Your task to perform on an android device: see sites visited before in the chrome app Image 0: 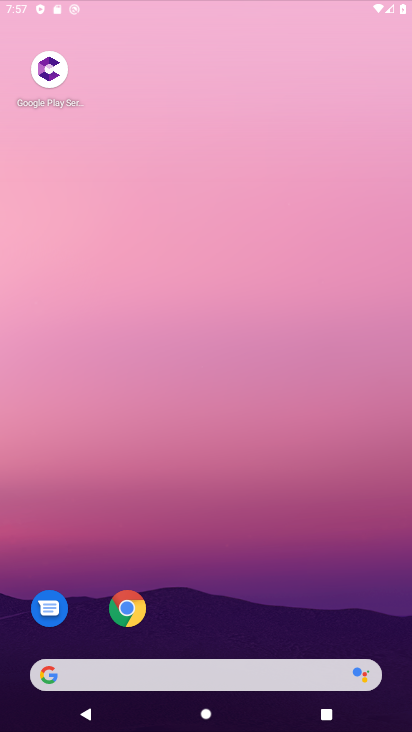
Step 0: click (200, 115)
Your task to perform on an android device: see sites visited before in the chrome app Image 1: 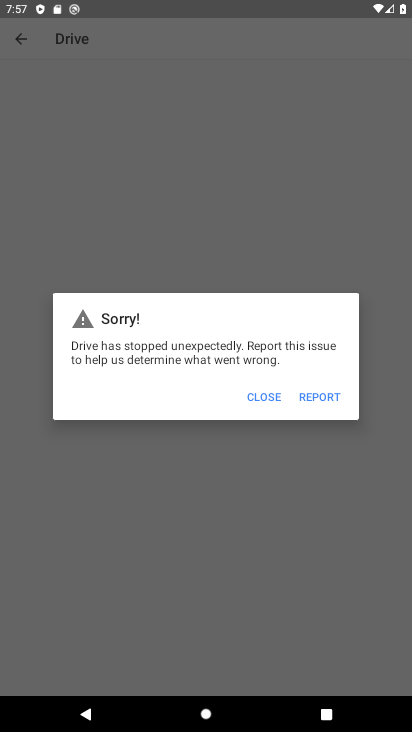
Step 1: press home button
Your task to perform on an android device: see sites visited before in the chrome app Image 2: 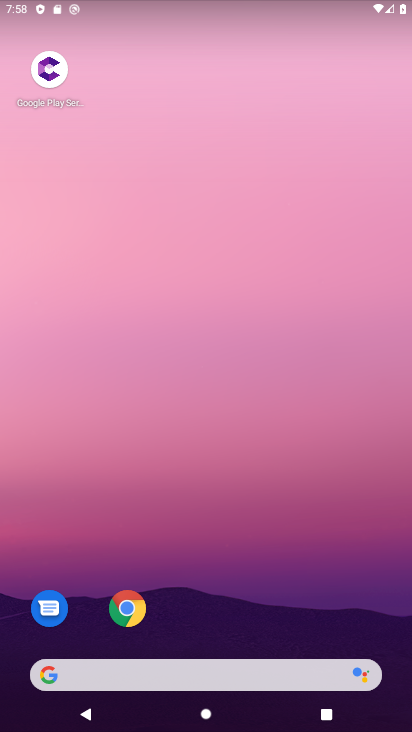
Step 2: click (121, 615)
Your task to perform on an android device: see sites visited before in the chrome app Image 3: 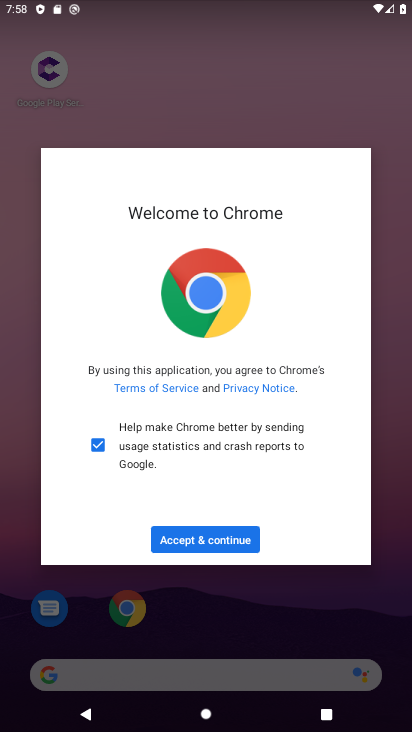
Step 3: click (227, 538)
Your task to perform on an android device: see sites visited before in the chrome app Image 4: 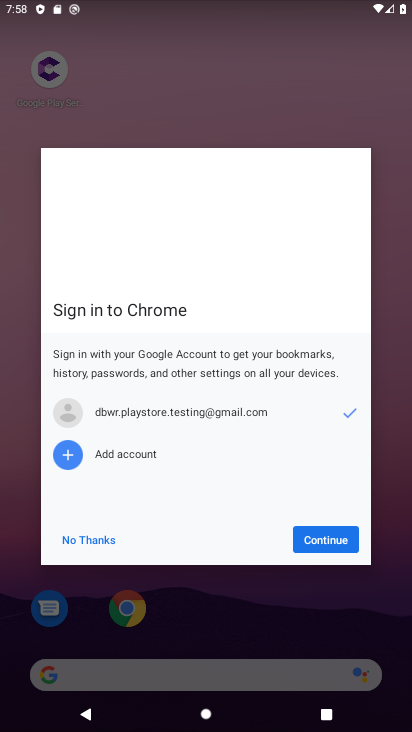
Step 4: click (332, 542)
Your task to perform on an android device: see sites visited before in the chrome app Image 5: 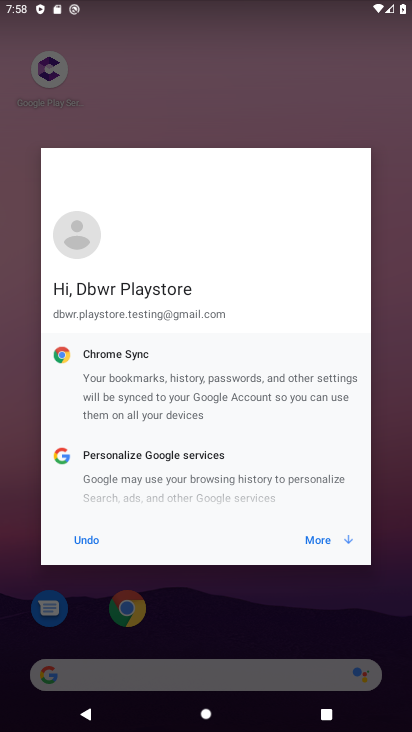
Step 5: click (332, 542)
Your task to perform on an android device: see sites visited before in the chrome app Image 6: 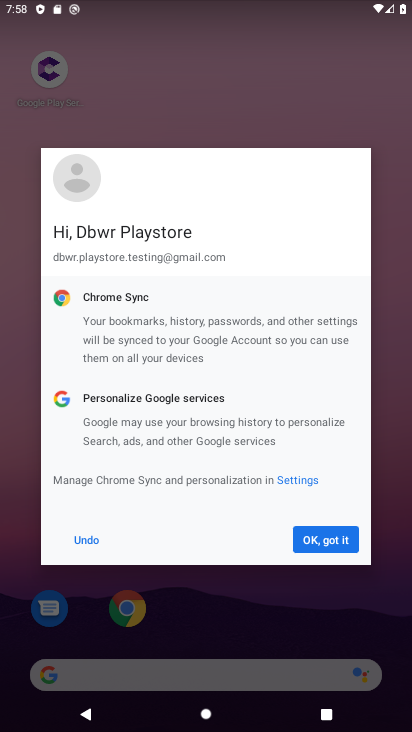
Step 6: click (332, 542)
Your task to perform on an android device: see sites visited before in the chrome app Image 7: 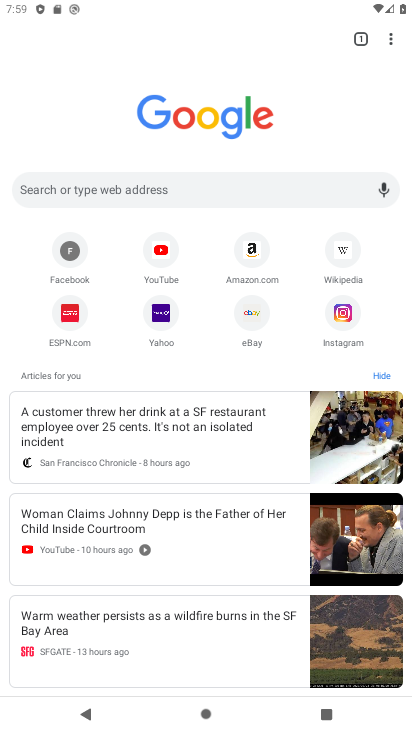
Step 7: task complete